Your task to perform on an android device: Open the map Image 0: 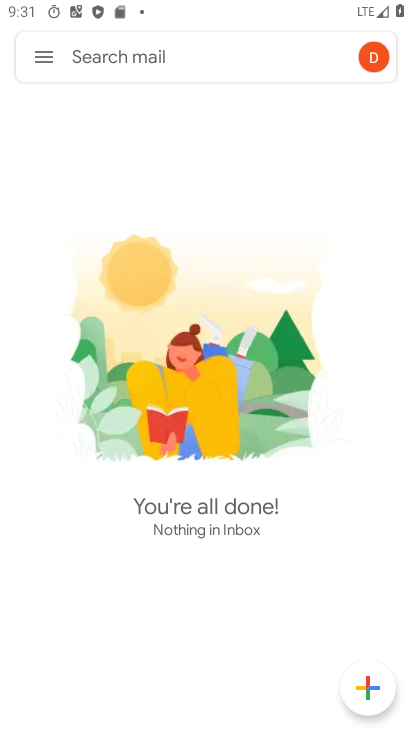
Step 0: press back button
Your task to perform on an android device: Open the map Image 1: 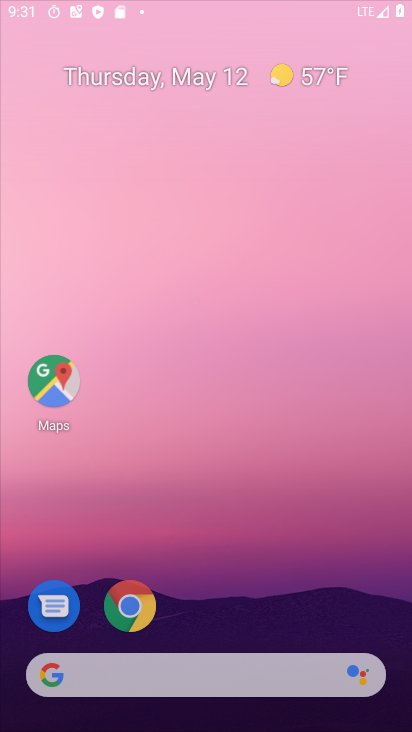
Step 1: press back button
Your task to perform on an android device: Open the map Image 2: 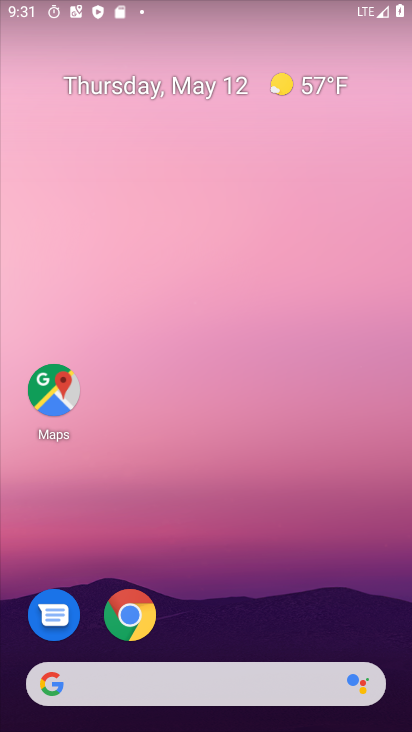
Step 2: drag from (247, 560) to (237, 40)
Your task to perform on an android device: Open the map Image 3: 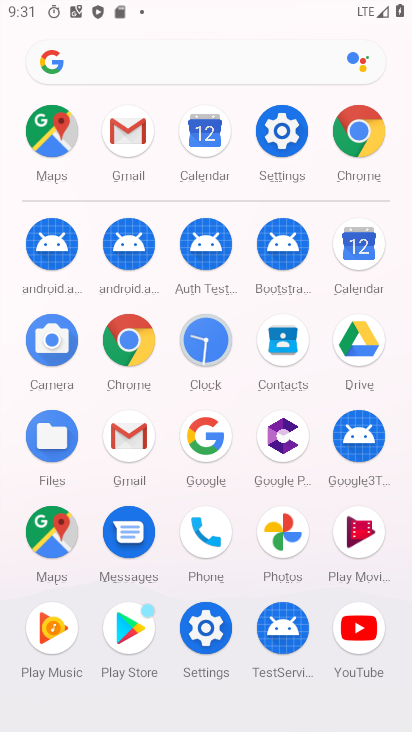
Step 3: click (53, 525)
Your task to perform on an android device: Open the map Image 4: 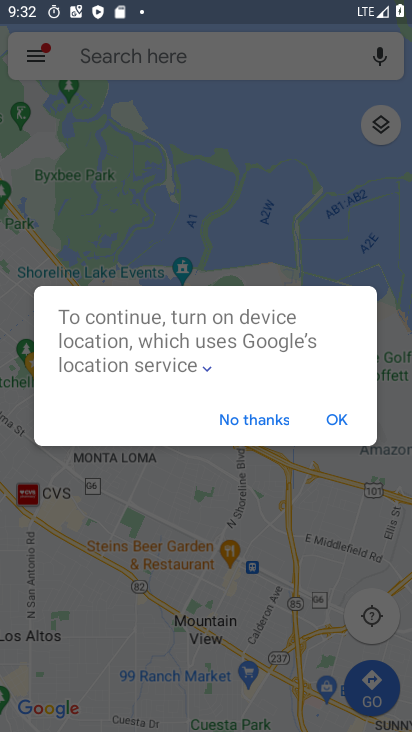
Step 4: click (333, 419)
Your task to perform on an android device: Open the map Image 5: 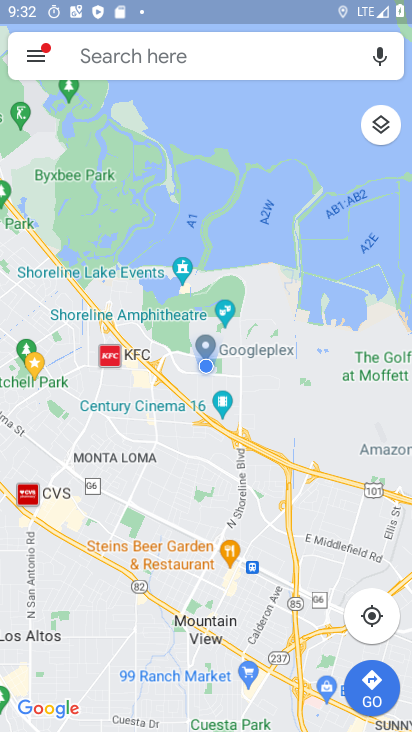
Step 5: task complete